Your task to perform on an android device: Open calendar and show me the third week of next month Image 0: 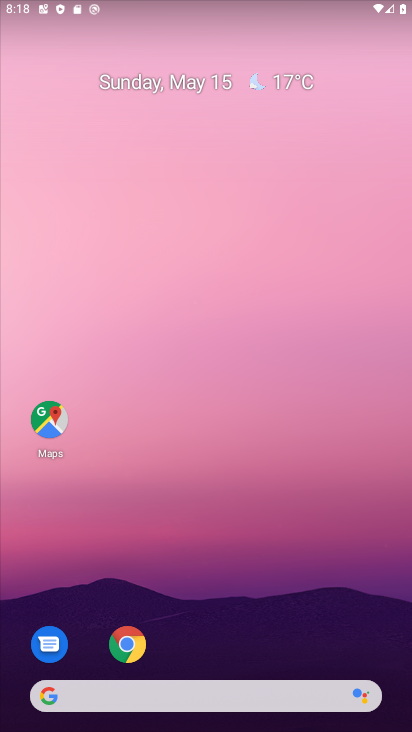
Step 0: drag from (260, 705) to (131, 214)
Your task to perform on an android device: Open calendar and show me the third week of next month Image 1: 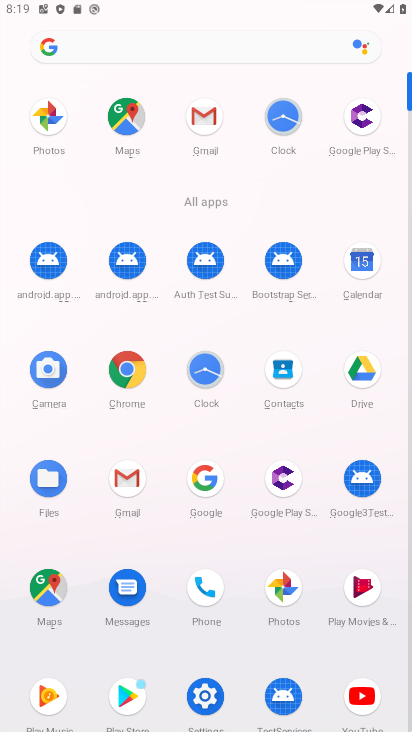
Step 1: click (347, 264)
Your task to perform on an android device: Open calendar and show me the third week of next month Image 2: 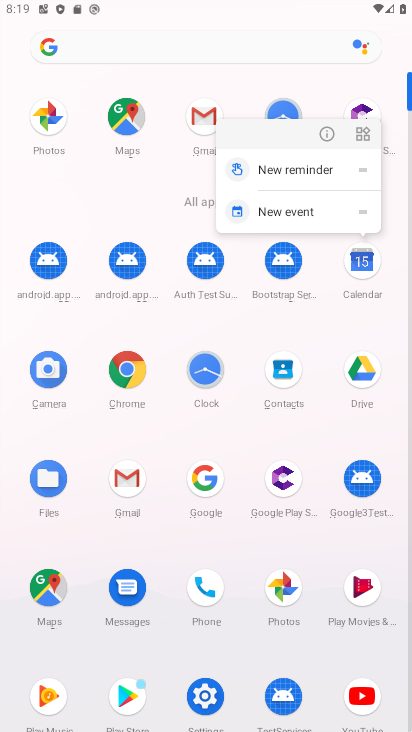
Step 2: click (365, 270)
Your task to perform on an android device: Open calendar and show me the third week of next month Image 3: 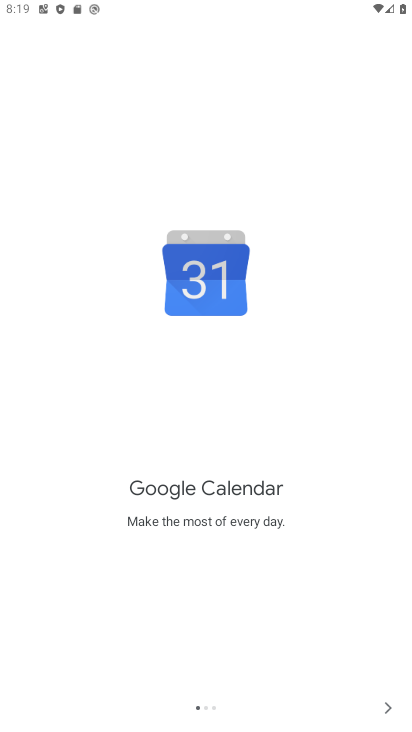
Step 3: click (387, 705)
Your task to perform on an android device: Open calendar and show me the third week of next month Image 4: 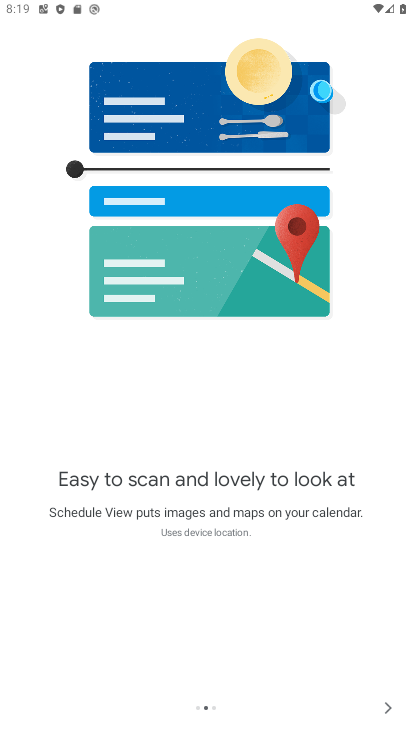
Step 4: click (384, 713)
Your task to perform on an android device: Open calendar and show me the third week of next month Image 5: 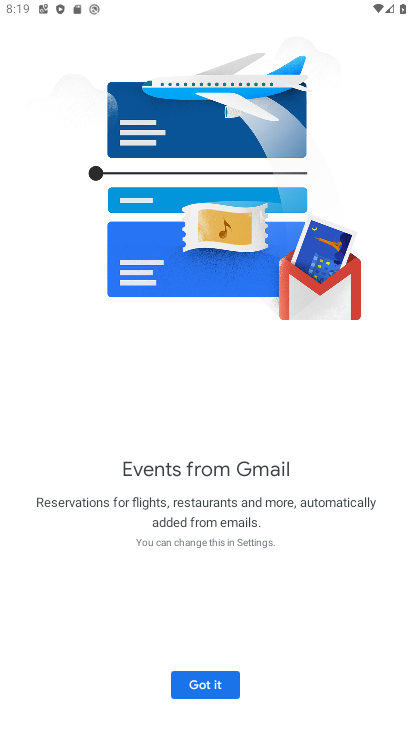
Step 5: click (209, 686)
Your task to perform on an android device: Open calendar and show me the third week of next month Image 6: 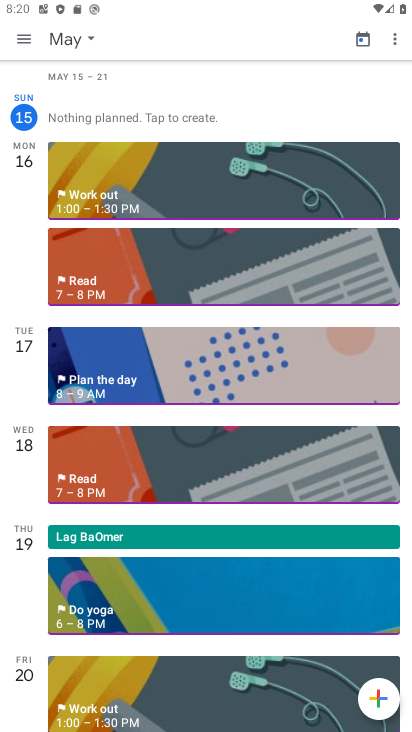
Step 6: click (24, 41)
Your task to perform on an android device: Open calendar and show me the third week of next month Image 7: 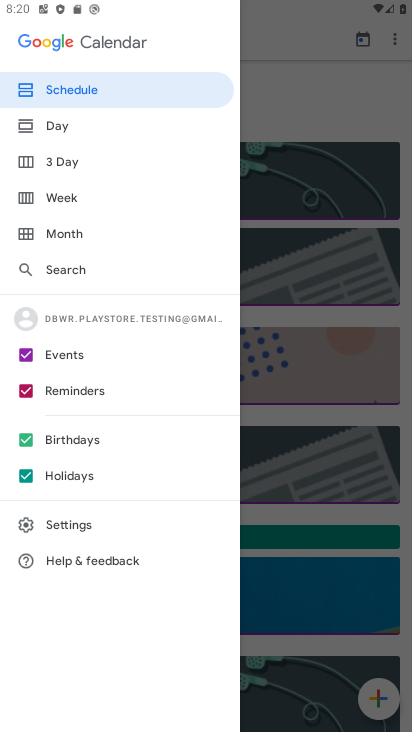
Step 7: click (67, 227)
Your task to perform on an android device: Open calendar and show me the third week of next month Image 8: 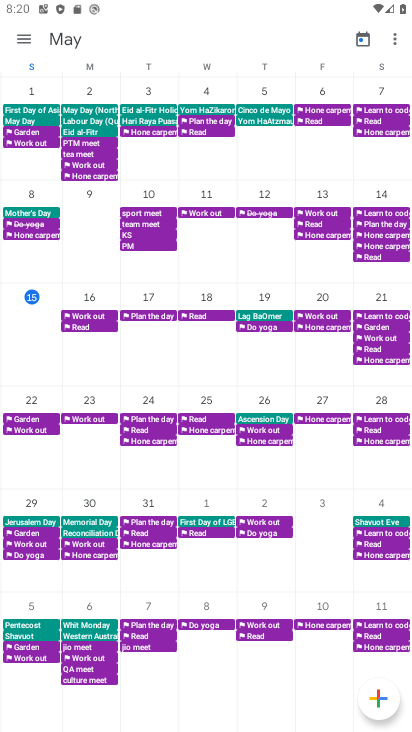
Step 8: drag from (345, 352) to (2, 370)
Your task to perform on an android device: Open calendar and show me the third week of next month Image 9: 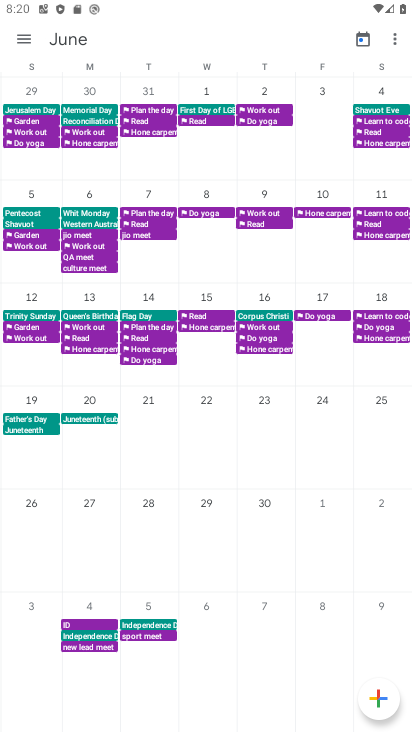
Step 9: click (82, 385)
Your task to perform on an android device: Open calendar and show me the third week of next month Image 10: 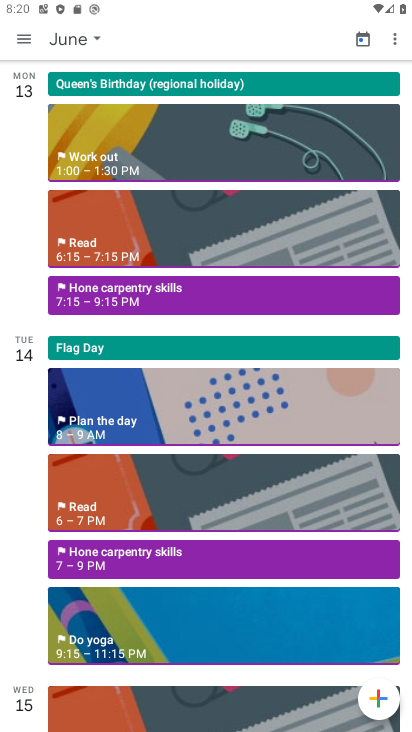
Step 10: task complete